Your task to perform on an android device: toggle priority inbox in the gmail app Image 0: 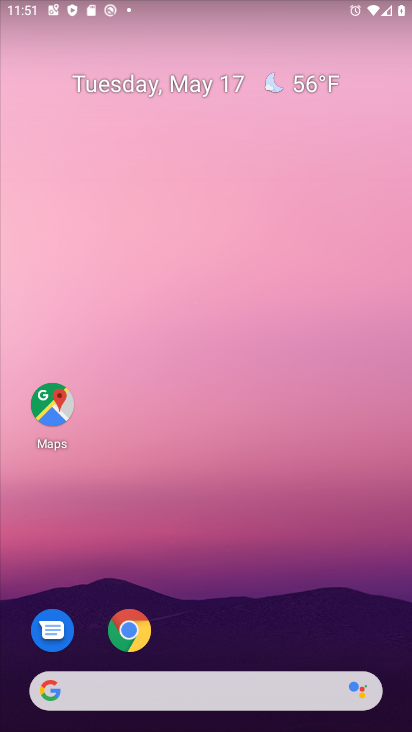
Step 0: drag from (304, 598) to (306, 177)
Your task to perform on an android device: toggle priority inbox in the gmail app Image 1: 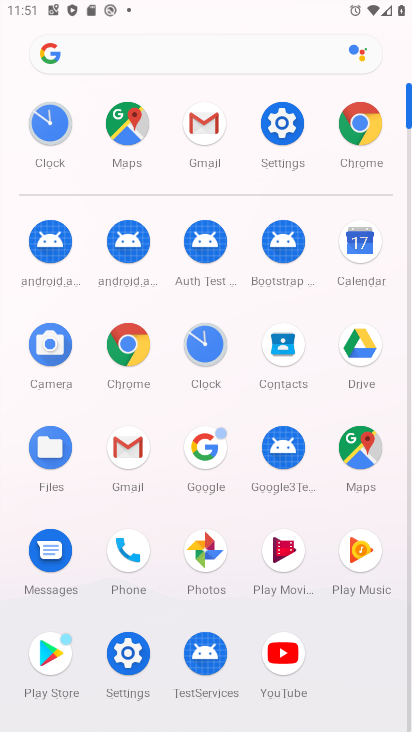
Step 1: click (119, 462)
Your task to perform on an android device: toggle priority inbox in the gmail app Image 2: 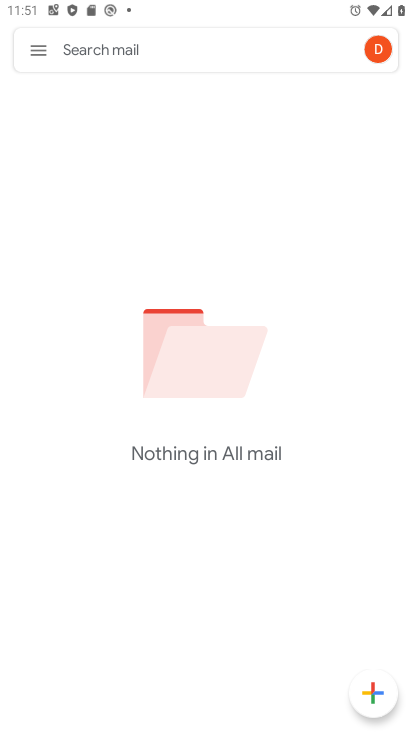
Step 2: click (38, 54)
Your task to perform on an android device: toggle priority inbox in the gmail app Image 3: 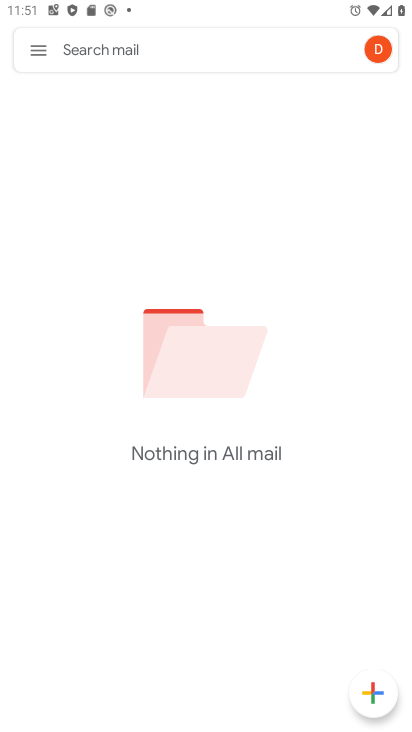
Step 3: click (31, 58)
Your task to perform on an android device: toggle priority inbox in the gmail app Image 4: 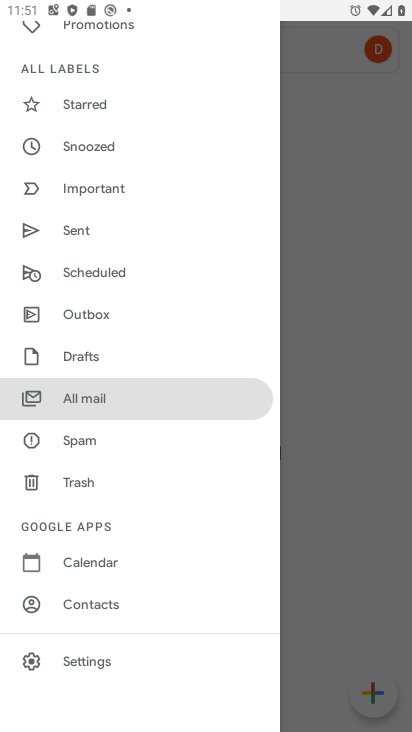
Step 4: click (106, 660)
Your task to perform on an android device: toggle priority inbox in the gmail app Image 5: 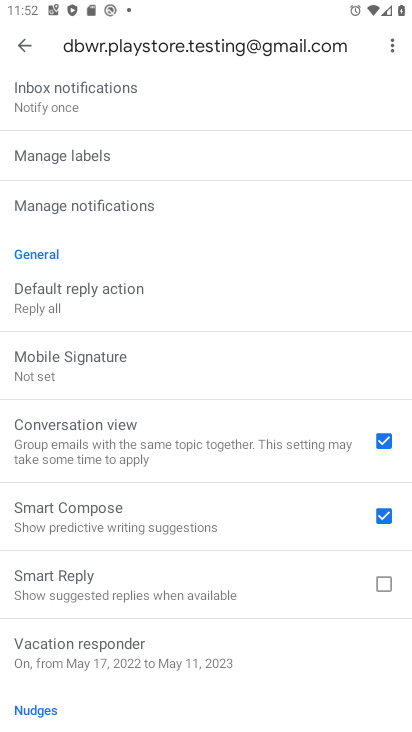
Step 5: drag from (88, 187) to (99, 582)
Your task to perform on an android device: toggle priority inbox in the gmail app Image 6: 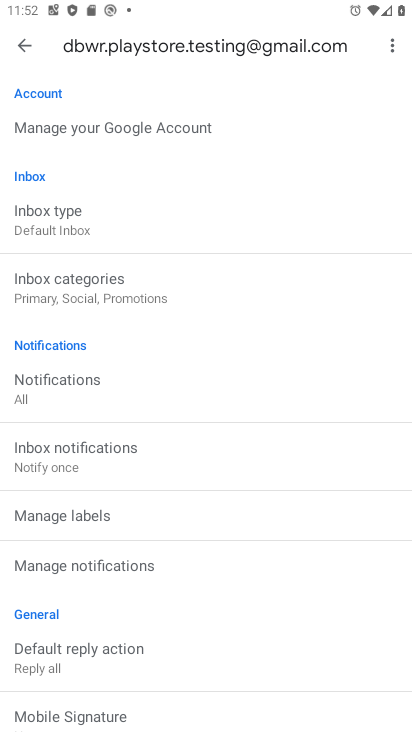
Step 6: click (77, 233)
Your task to perform on an android device: toggle priority inbox in the gmail app Image 7: 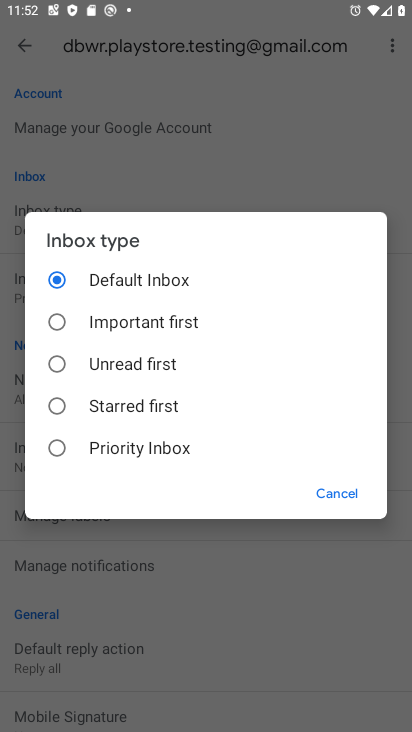
Step 7: click (106, 452)
Your task to perform on an android device: toggle priority inbox in the gmail app Image 8: 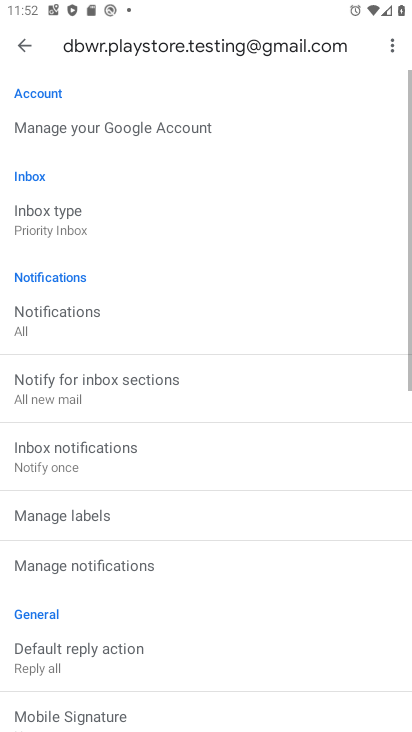
Step 8: task complete